Your task to perform on an android device: toggle airplane mode Image 0: 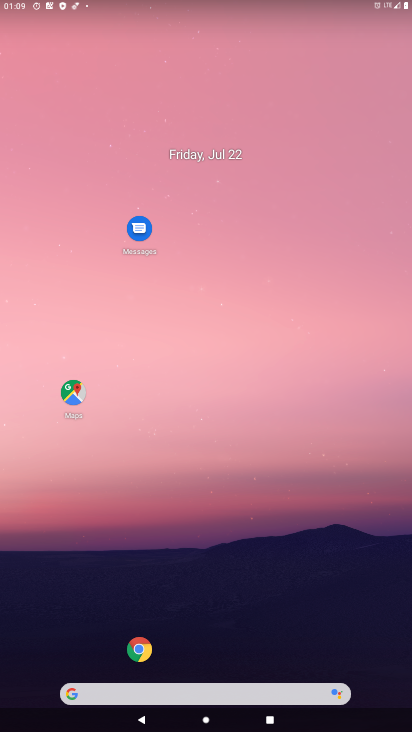
Step 0: drag from (41, 691) to (246, 71)
Your task to perform on an android device: toggle airplane mode Image 1: 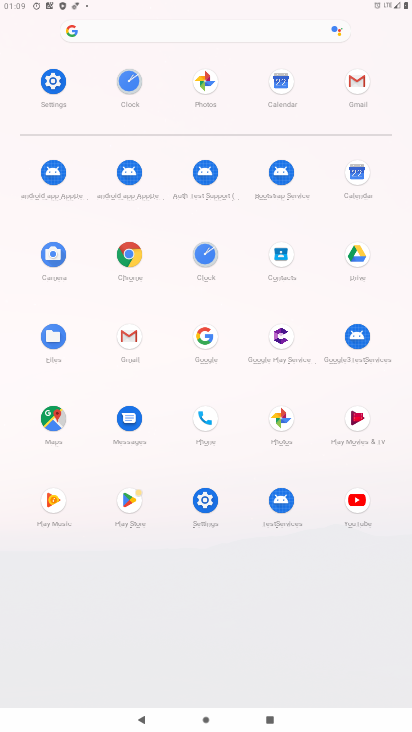
Step 1: click (205, 491)
Your task to perform on an android device: toggle airplane mode Image 2: 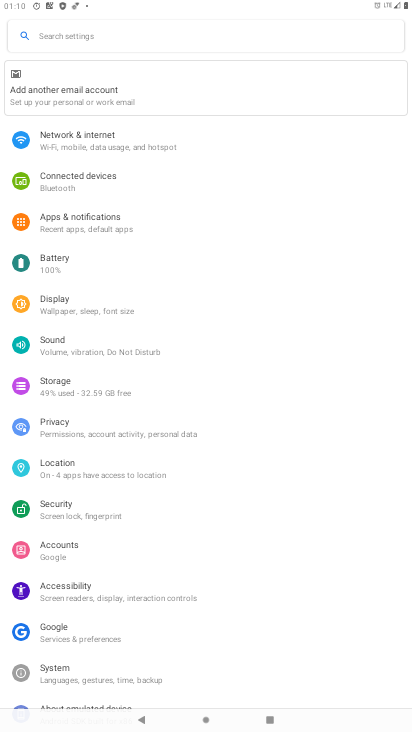
Step 2: click (109, 133)
Your task to perform on an android device: toggle airplane mode Image 3: 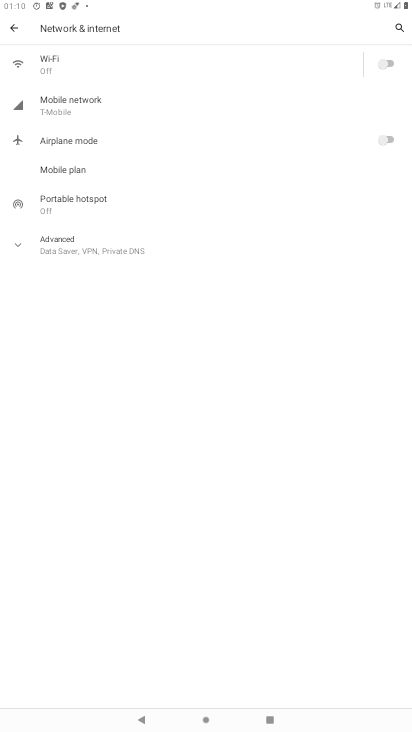
Step 3: click (384, 136)
Your task to perform on an android device: toggle airplane mode Image 4: 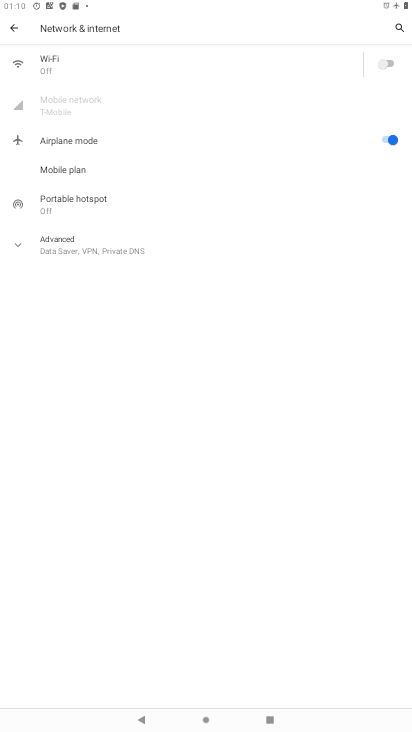
Step 4: task complete